Your task to perform on an android device: Go to eBay Image 0: 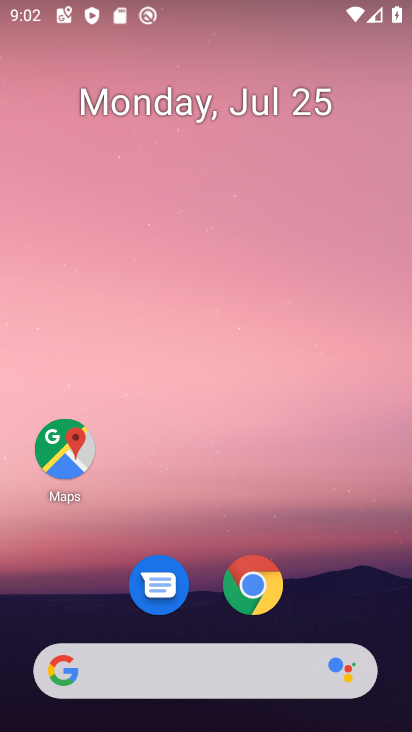
Step 0: press home button
Your task to perform on an android device: Go to eBay Image 1: 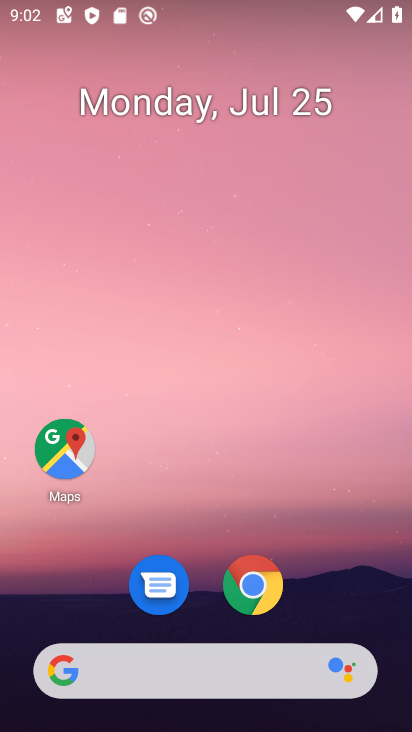
Step 1: click (258, 578)
Your task to perform on an android device: Go to eBay Image 2: 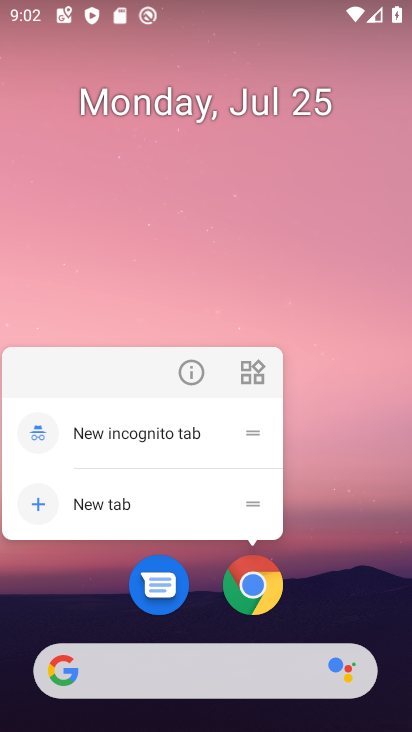
Step 2: click (255, 588)
Your task to perform on an android device: Go to eBay Image 3: 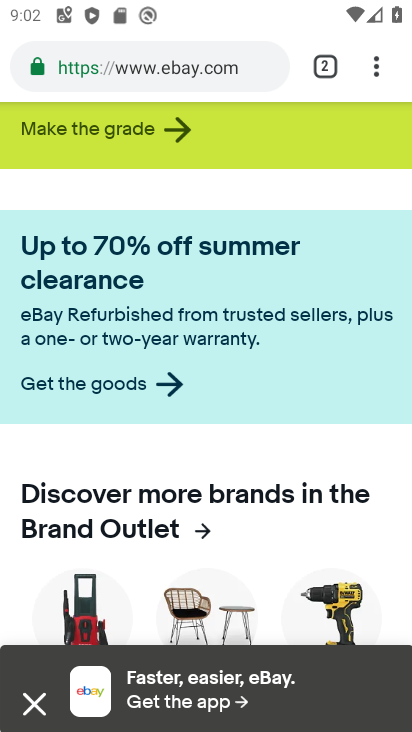
Step 3: drag from (378, 67) to (240, 135)
Your task to perform on an android device: Go to eBay Image 4: 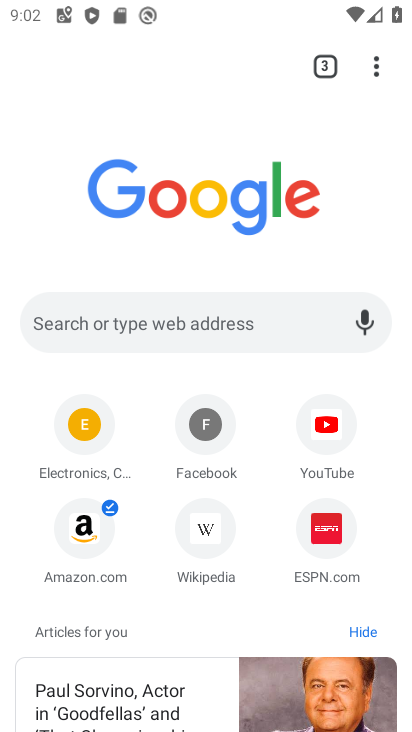
Step 4: click (152, 323)
Your task to perform on an android device: Go to eBay Image 5: 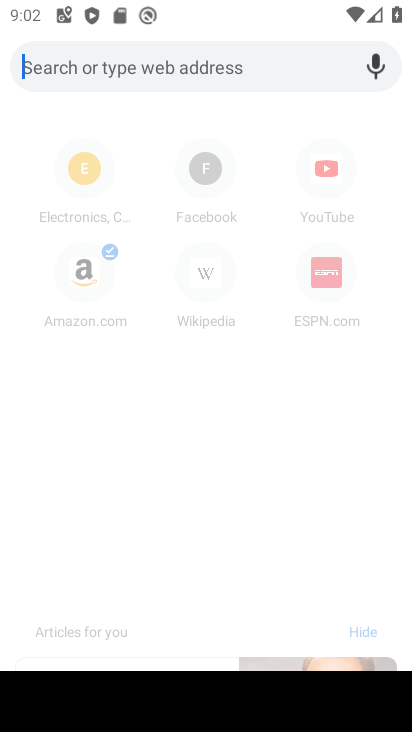
Step 5: press back button
Your task to perform on an android device: Go to eBay Image 6: 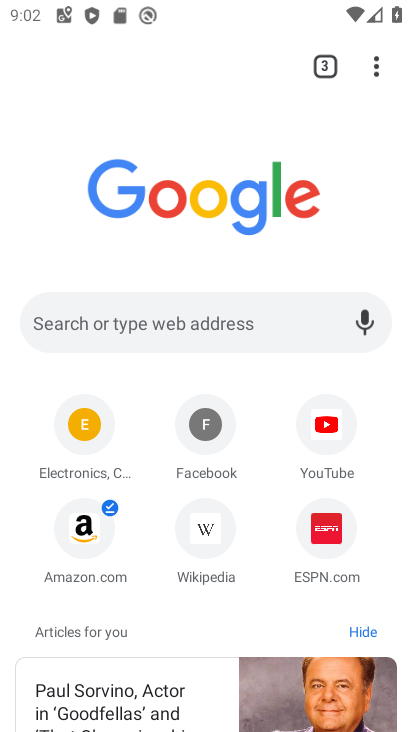
Step 6: click (91, 436)
Your task to perform on an android device: Go to eBay Image 7: 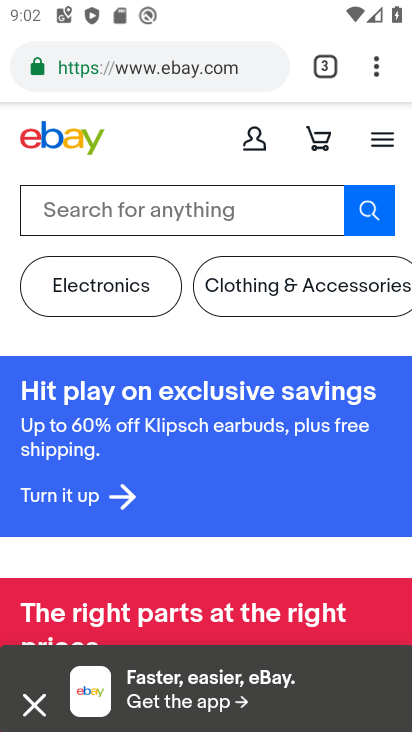
Step 7: drag from (190, 575) to (325, 259)
Your task to perform on an android device: Go to eBay Image 8: 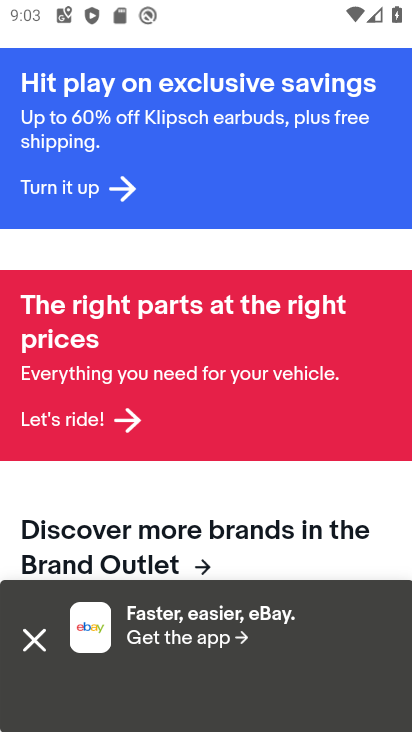
Step 8: click (28, 641)
Your task to perform on an android device: Go to eBay Image 9: 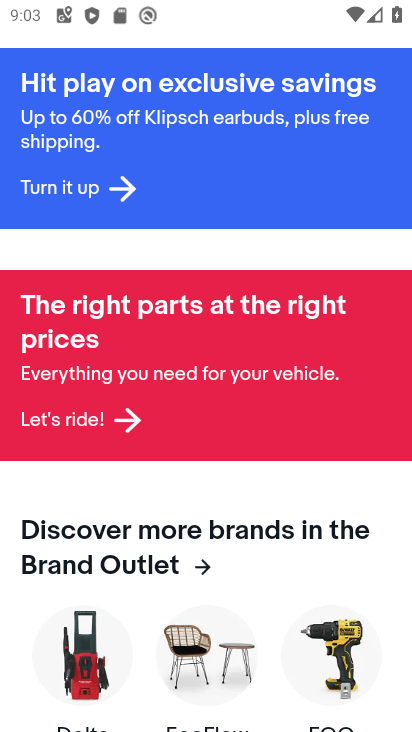
Step 9: task complete